Your task to perform on an android device: Open the calendar and show me this week's events? Image 0: 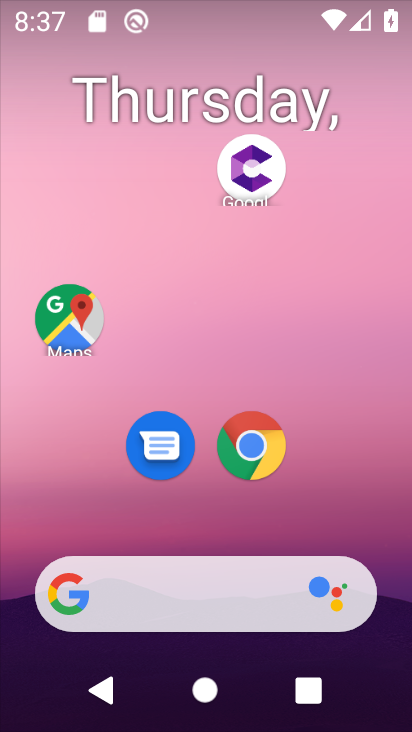
Step 0: drag from (221, 398) to (261, 37)
Your task to perform on an android device: Open the calendar and show me this week's events? Image 1: 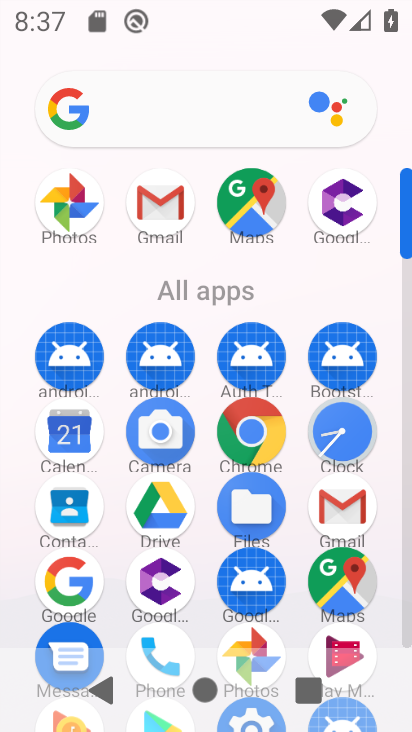
Step 1: click (76, 432)
Your task to perform on an android device: Open the calendar and show me this week's events? Image 2: 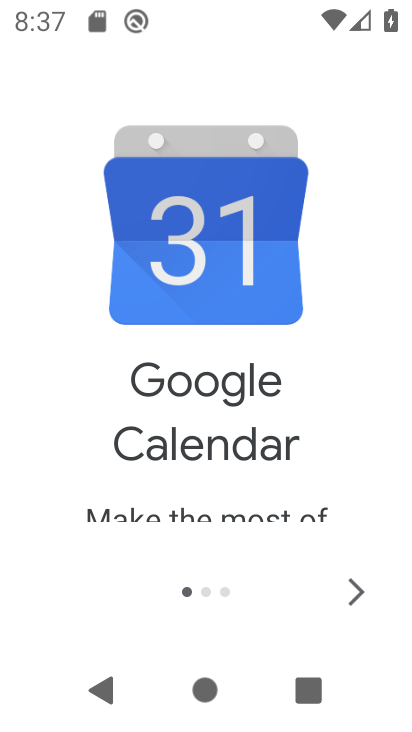
Step 2: click (363, 592)
Your task to perform on an android device: Open the calendar and show me this week's events? Image 3: 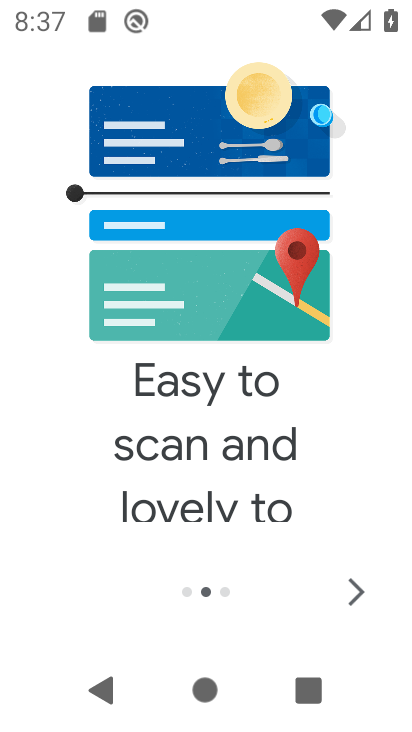
Step 3: click (363, 592)
Your task to perform on an android device: Open the calendar and show me this week's events? Image 4: 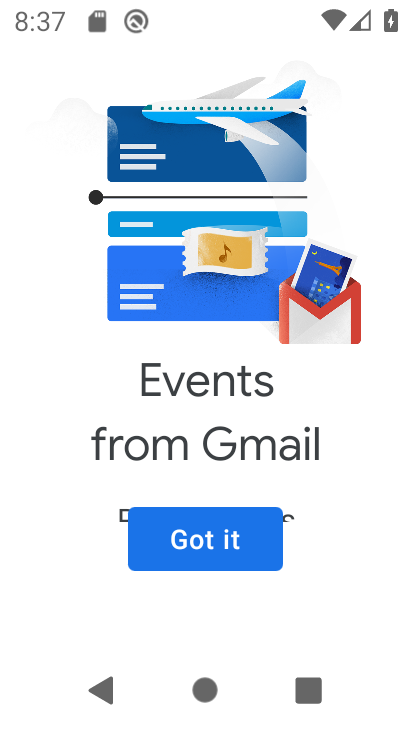
Step 4: click (194, 541)
Your task to perform on an android device: Open the calendar and show me this week's events? Image 5: 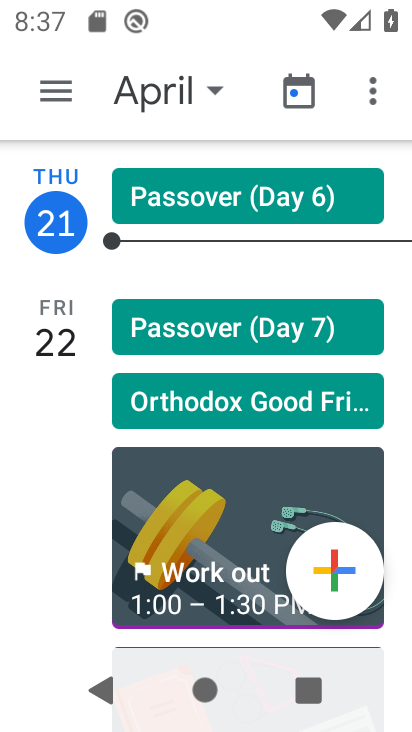
Step 5: click (61, 95)
Your task to perform on an android device: Open the calendar and show me this week's events? Image 6: 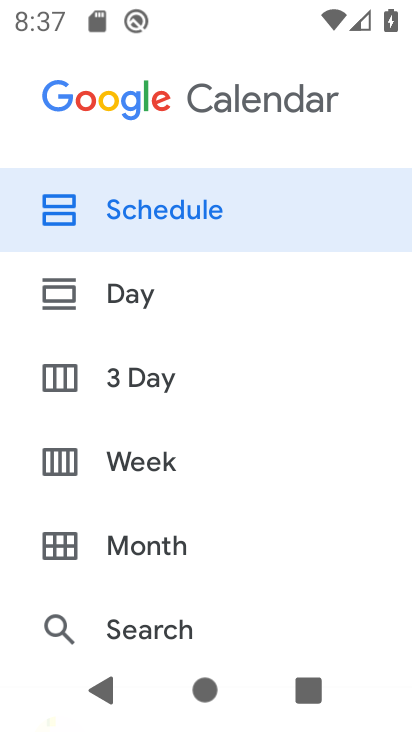
Step 6: click (133, 461)
Your task to perform on an android device: Open the calendar and show me this week's events? Image 7: 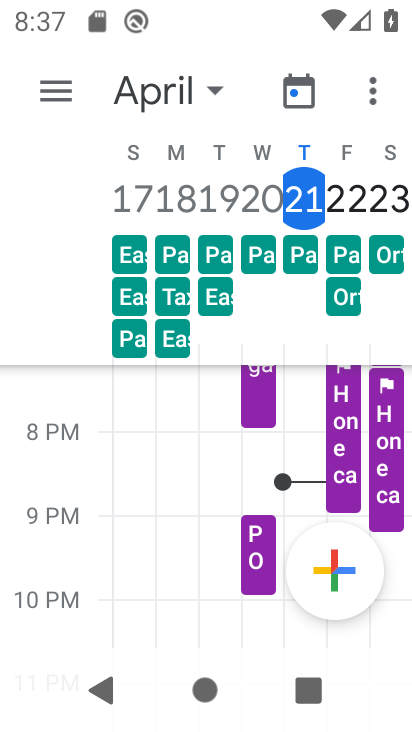
Step 7: click (60, 80)
Your task to perform on an android device: Open the calendar and show me this week's events? Image 8: 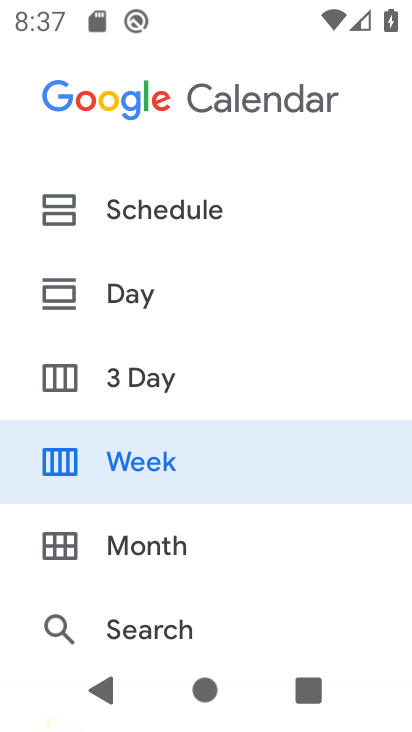
Step 8: drag from (104, 467) to (142, 174)
Your task to perform on an android device: Open the calendar and show me this week's events? Image 9: 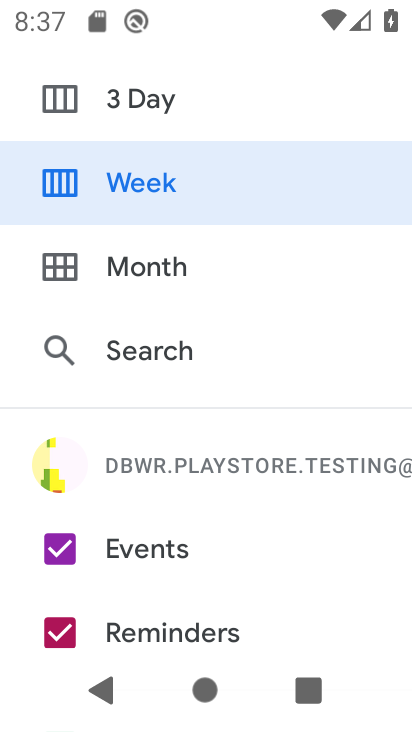
Step 9: click (53, 634)
Your task to perform on an android device: Open the calendar and show me this week's events? Image 10: 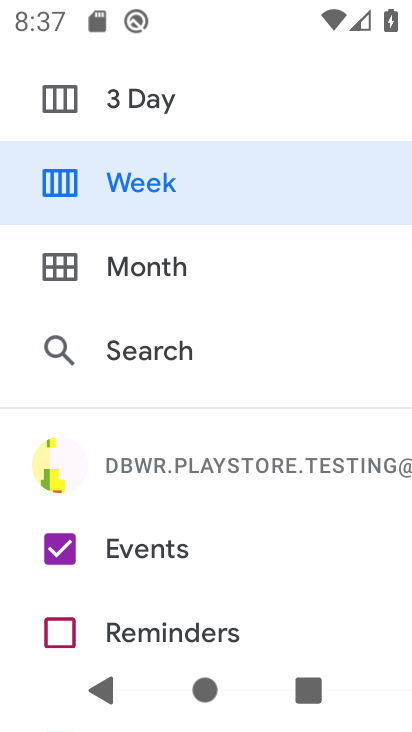
Step 10: drag from (198, 554) to (243, 165)
Your task to perform on an android device: Open the calendar and show me this week's events? Image 11: 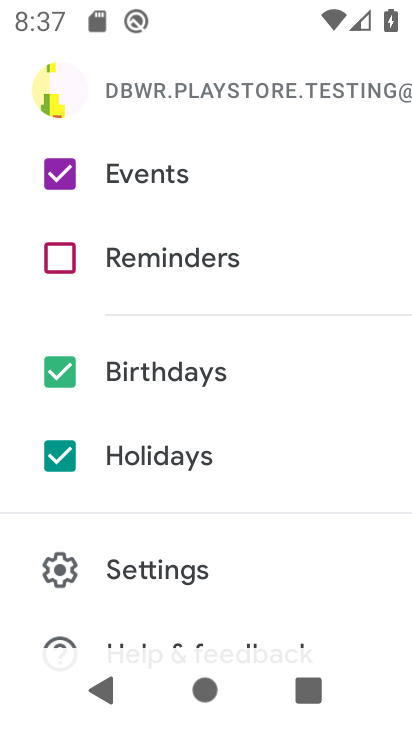
Step 11: click (66, 369)
Your task to perform on an android device: Open the calendar and show me this week's events? Image 12: 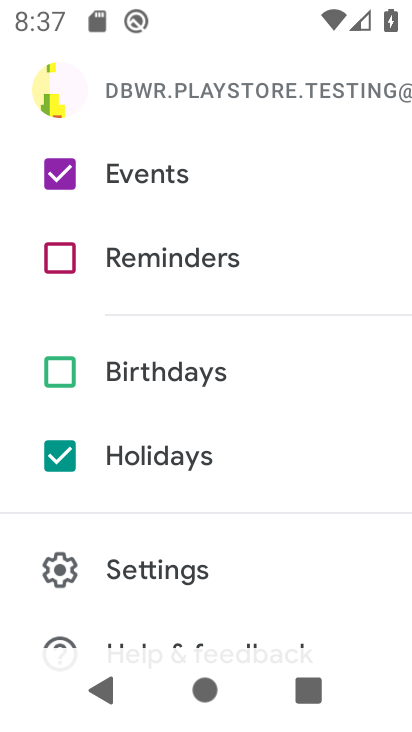
Step 12: click (50, 473)
Your task to perform on an android device: Open the calendar and show me this week's events? Image 13: 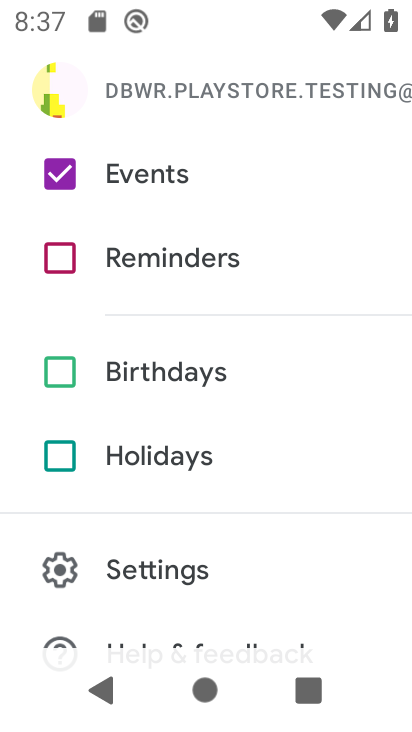
Step 13: task complete